Your task to perform on an android device: Open Google Maps Image 0: 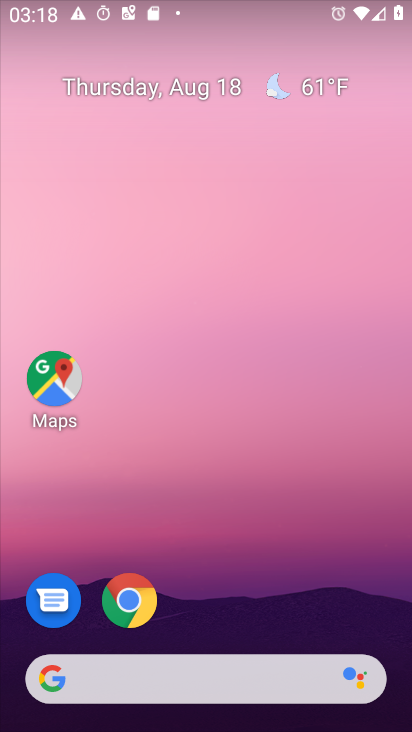
Step 0: press home button
Your task to perform on an android device: Open Google Maps Image 1: 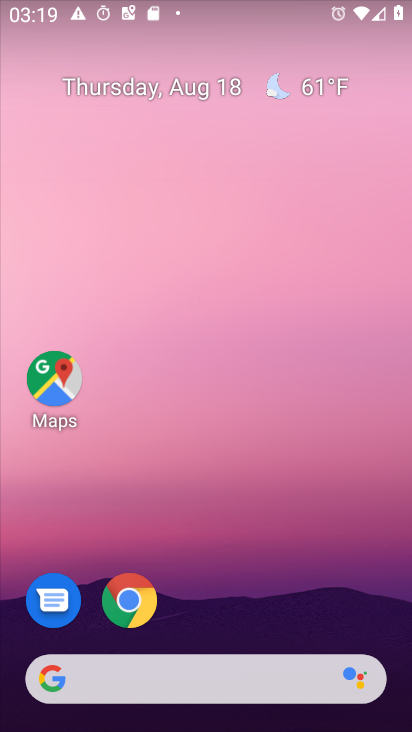
Step 1: click (40, 388)
Your task to perform on an android device: Open Google Maps Image 2: 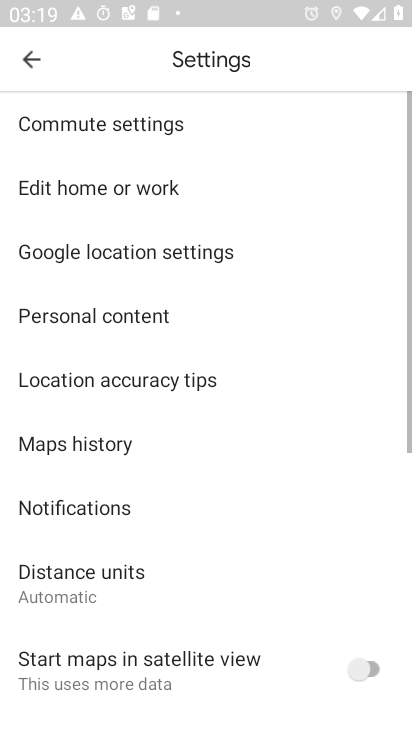
Step 2: task complete